Your task to perform on an android device: set the timer Image 0: 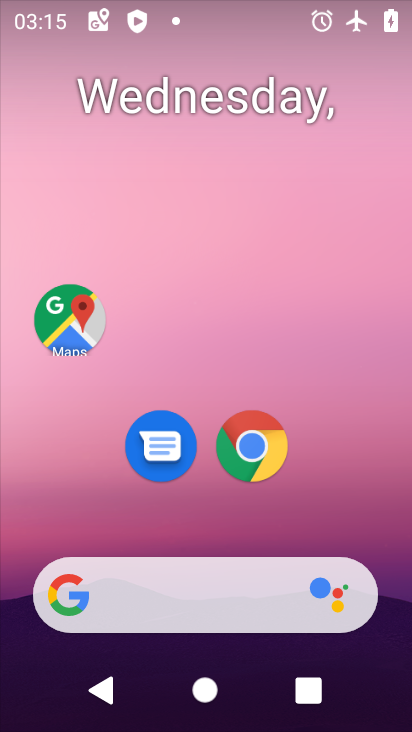
Step 0: drag from (195, 545) to (199, 236)
Your task to perform on an android device: set the timer Image 1: 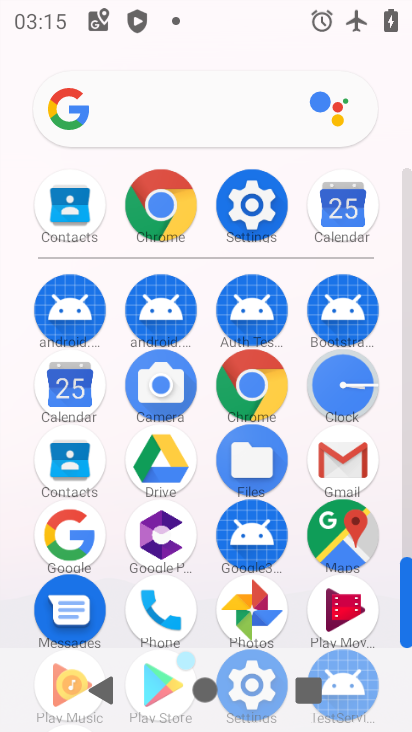
Step 1: click (325, 379)
Your task to perform on an android device: set the timer Image 2: 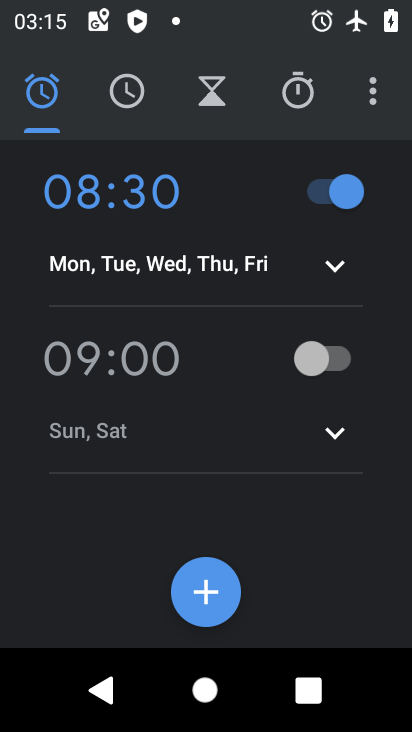
Step 2: click (219, 99)
Your task to perform on an android device: set the timer Image 3: 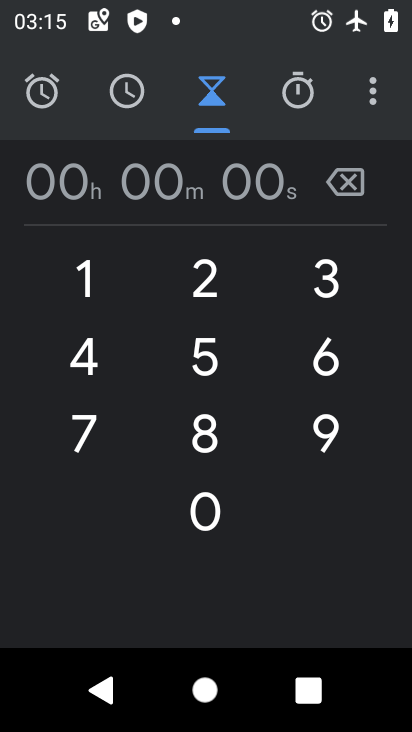
Step 3: click (238, 186)
Your task to perform on an android device: set the timer Image 4: 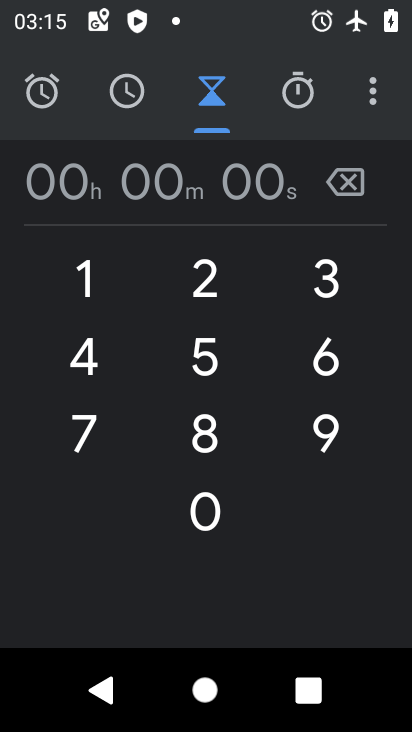
Step 4: type "11"
Your task to perform on an android device: set the timer Image 5: 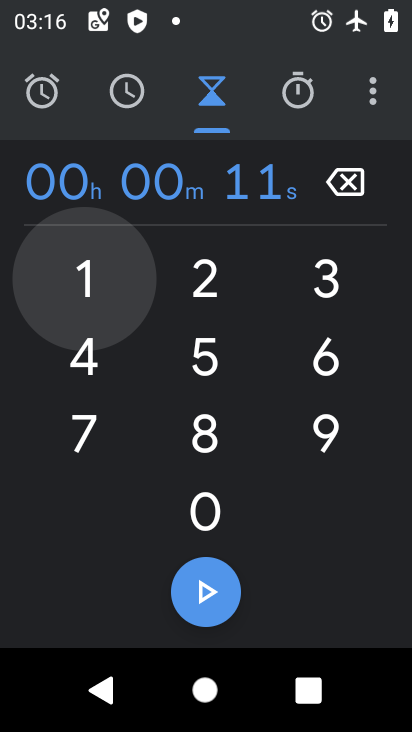
Step 5: press home button
Your task to perform on an android device: set the timer Image 6: 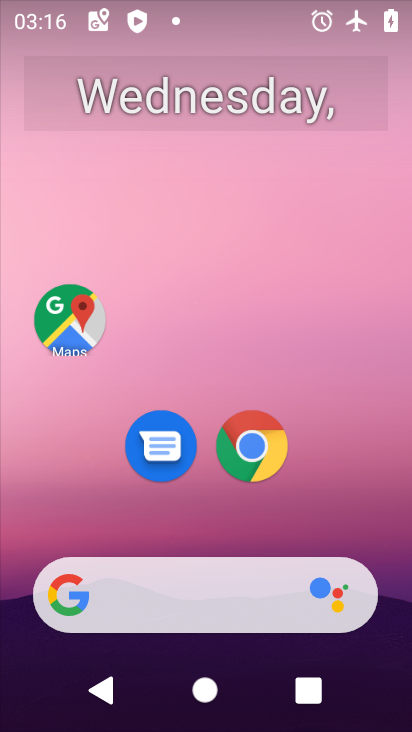
Step 6: drag from (215, 535) to (236, 199)
Your task to perform on an android device: set the timer Image 7: 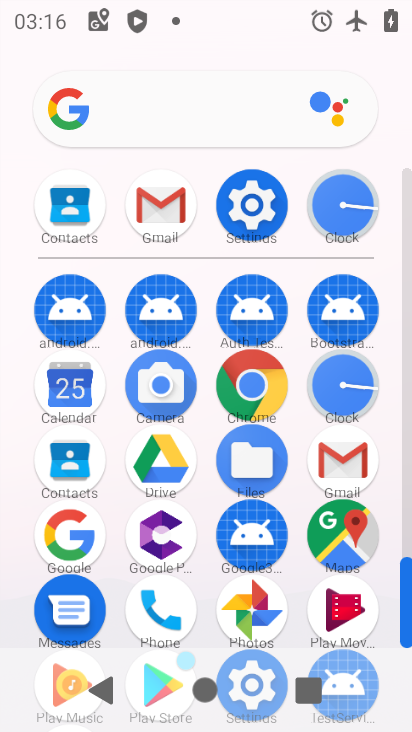
Step 7: click (339, 238)
Your task to perform on an android device: set the timer Image 8: 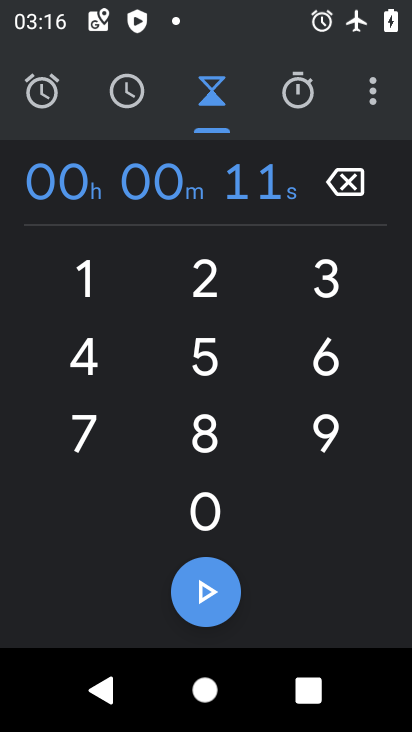
Step 8: click (214, 585)
Your task to perform on an android device: set the timer Image 9: 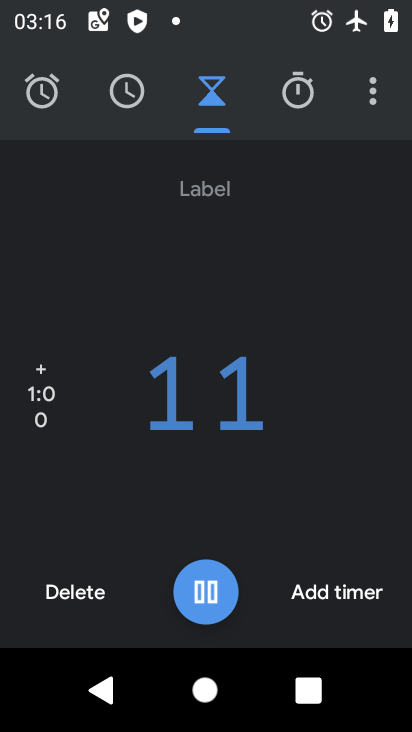
Step 9: task complete